Your task to perform on an android device: Search for a custom made wallet Image 0: 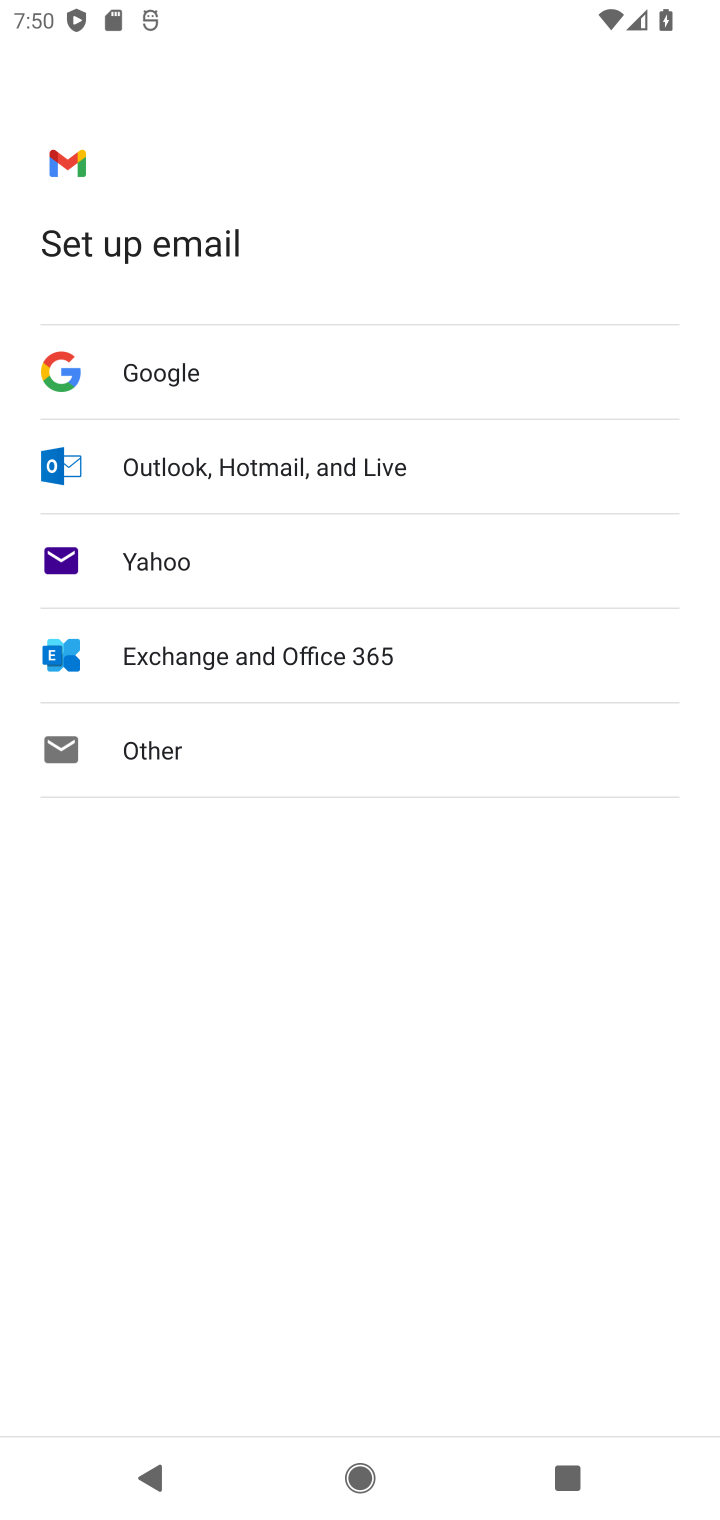
Step 0: press home button
Your task to perform on an android device: Search for a custom made wallet Image 1: 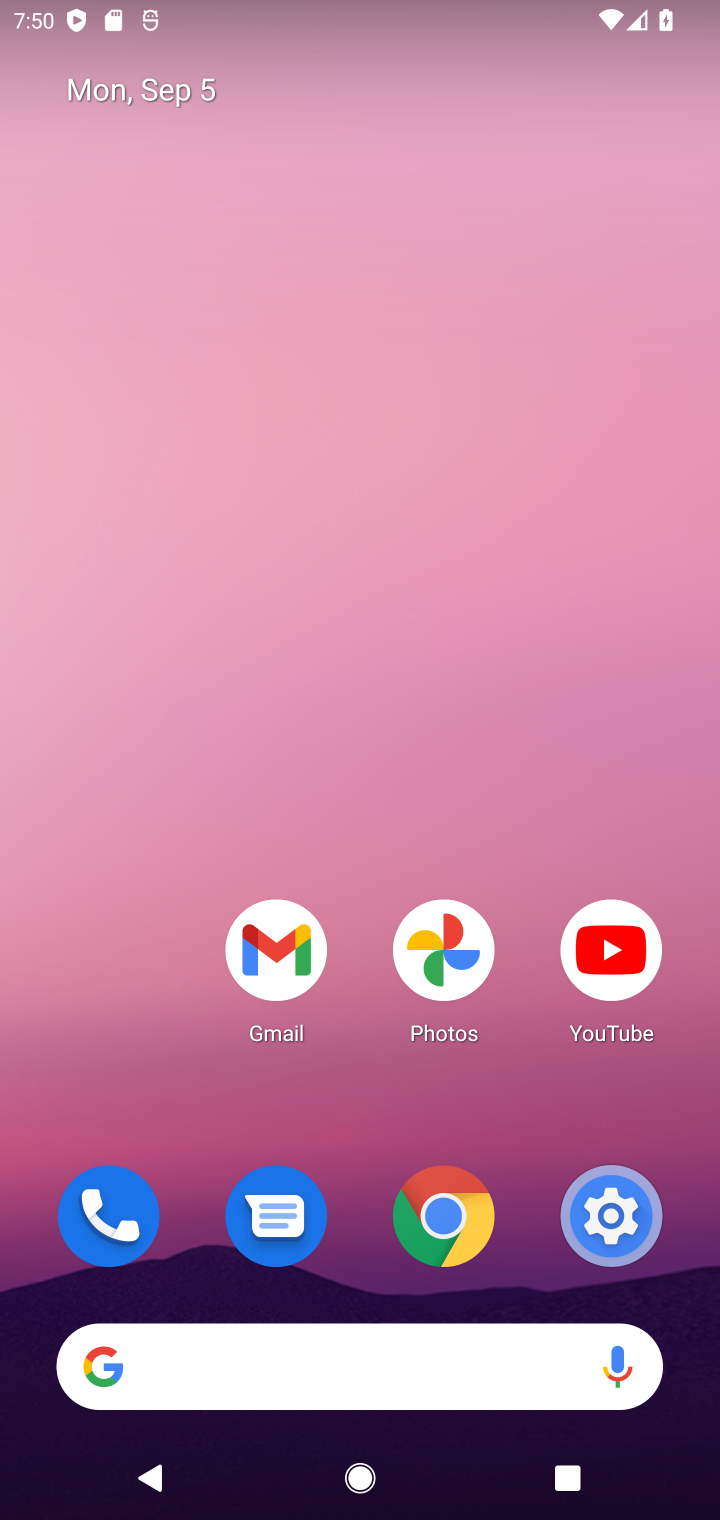
Step 1: click (279, 1343)
Your task to perform on an android device: Search for a custom made wallet Image 2: 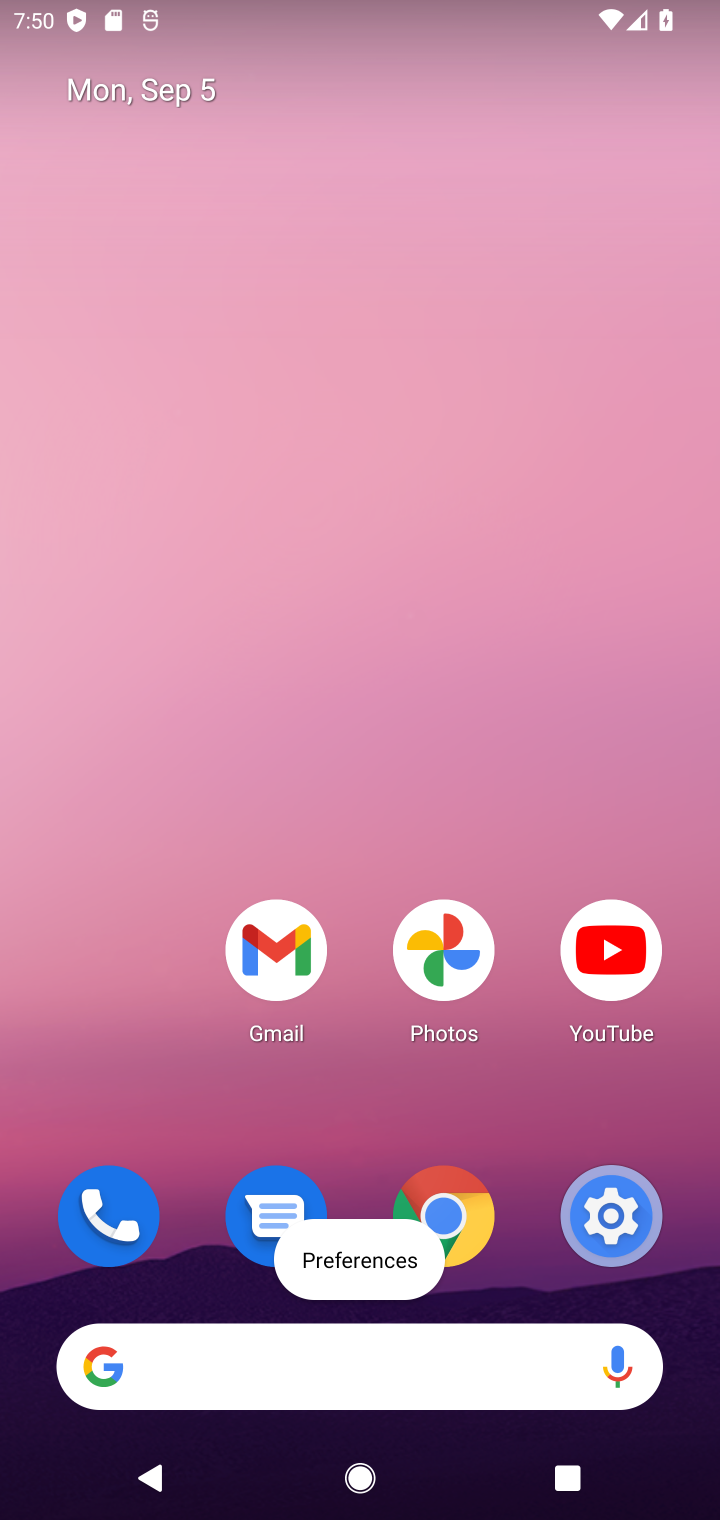
Step 2: click (281, 1352)
Your task to perform on an android device: Search for a custom made wallet Image 3: 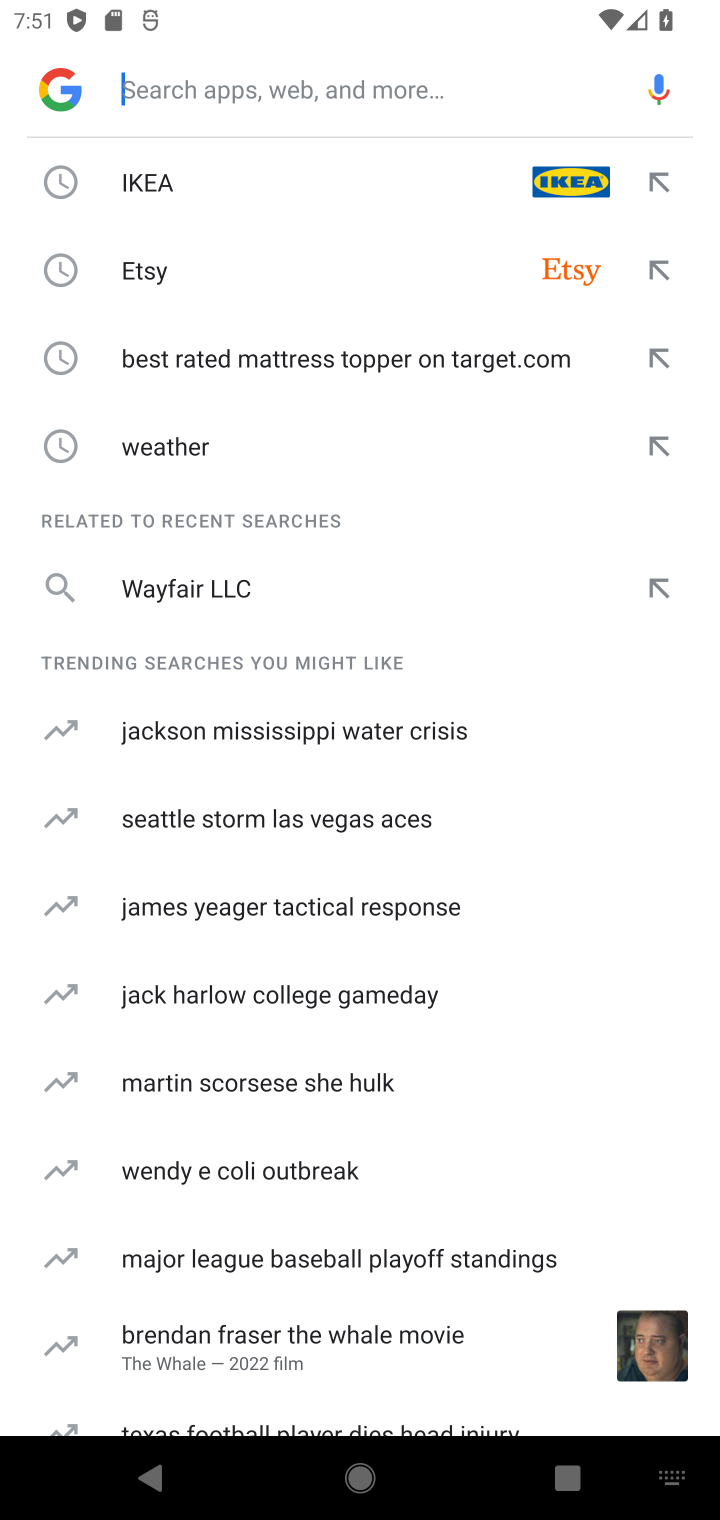
Step 3: type "custom made wallet"
Your task to perform on an android device: Search for a custom made wallet Image 4: 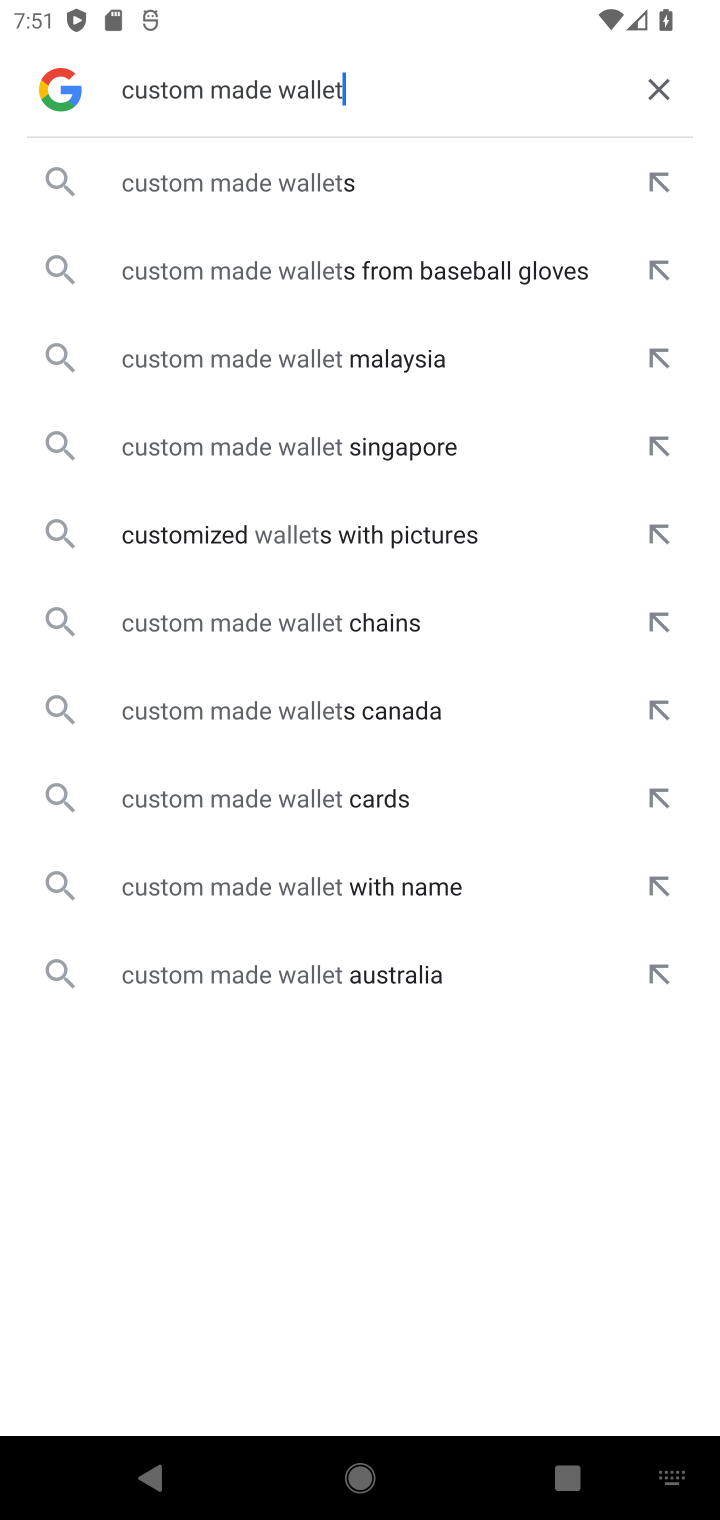
Step 4: click (248, 171)
Your task to perform on an android device: Search for a custom made wallet Image 5: 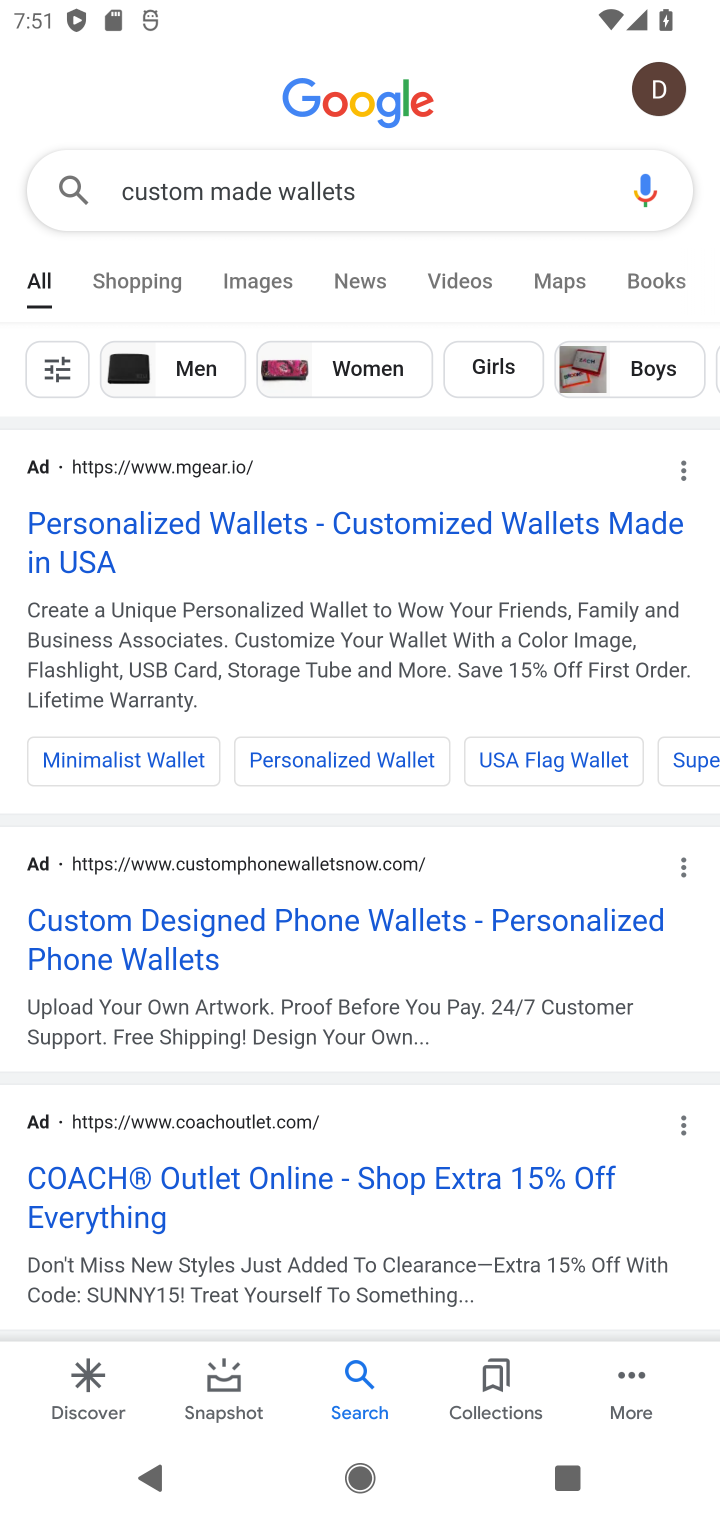
Step 5: click (246, 528)
Your task to perform on an android device: Search for a custom made wallet Image 6: 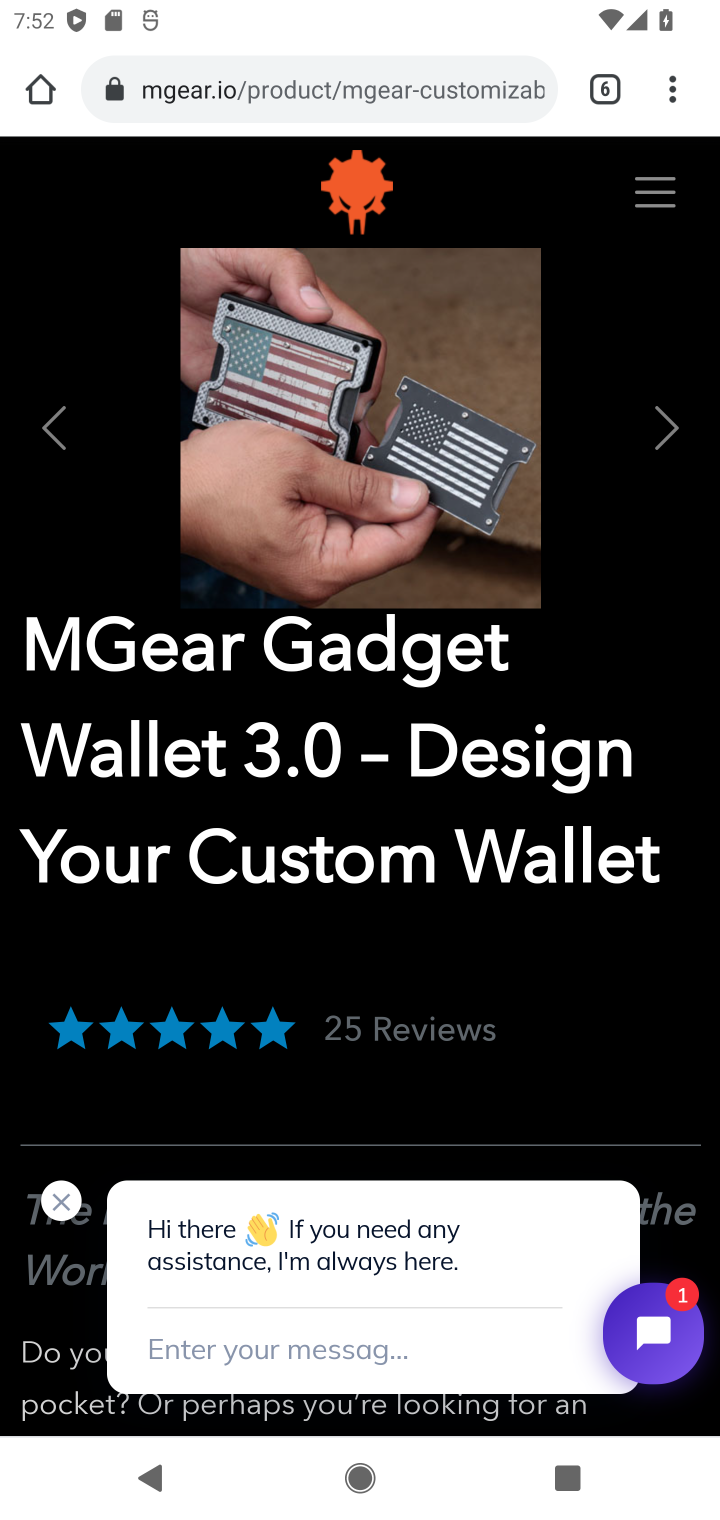
Step 6: task complete